Your task to perform on an android device: change notifications settings Image 0: 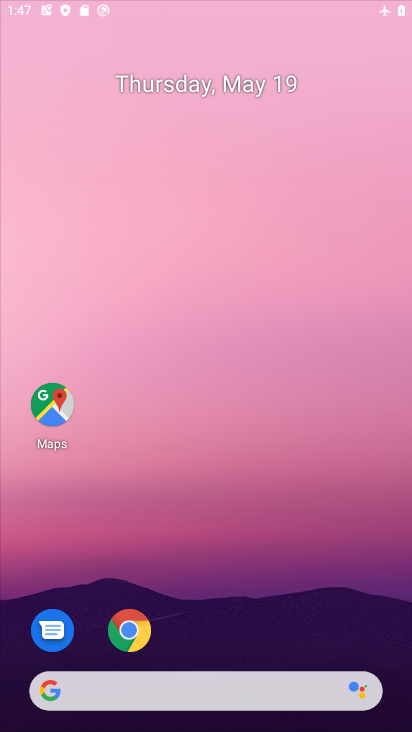
Step 0: drag from (221, 624) to (177, 102)
Your task to perform on an android device: change notifications settings Image 1: 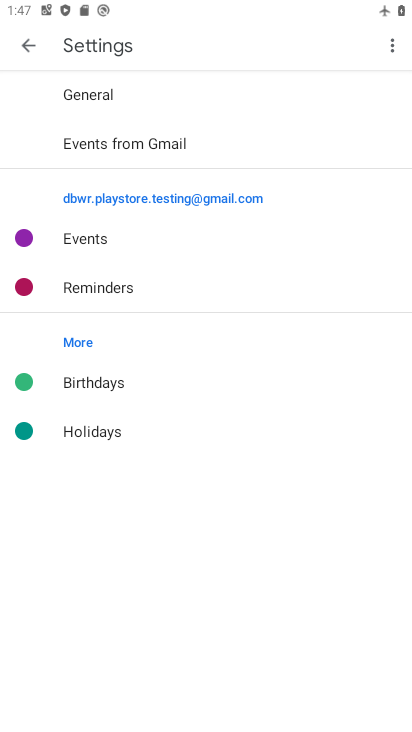
Step 1: press home button
Your task to perform on an android device: change notifications settings Image 2: 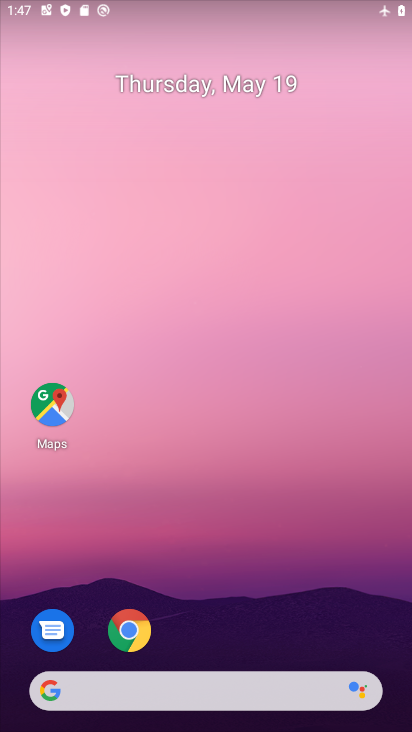
Step 2: drag from (201, 661) to (132, 52)
Your task to perform on an android device: change notifications settings Image 3: 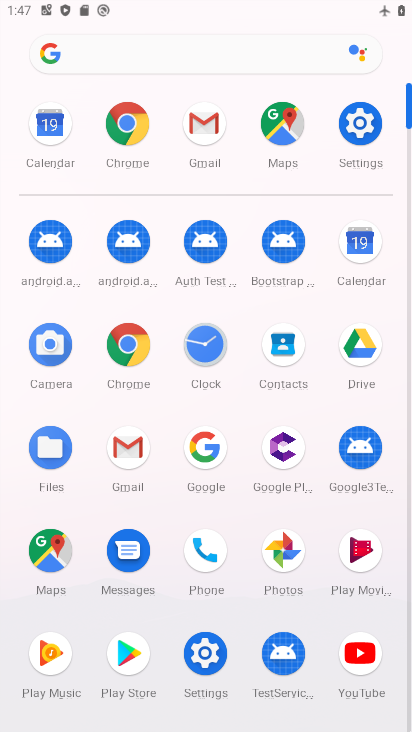
Step 3: click (376, 126)
Your task to perform on an android device: change notifications settings Image 4: 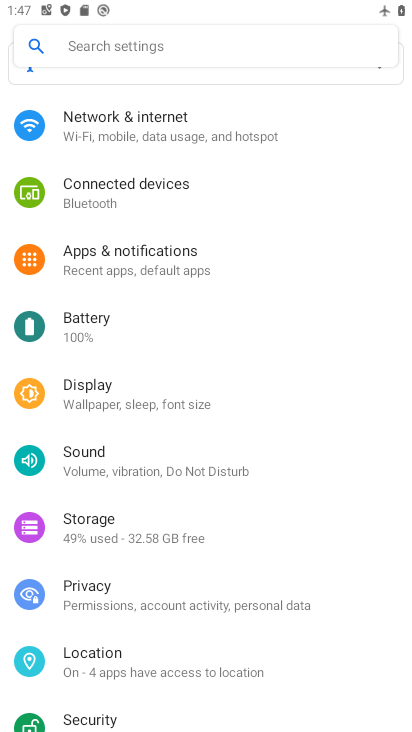
Step 4: click (172, 264)
Your task to perform on an android device: change notifications settings Image 5: 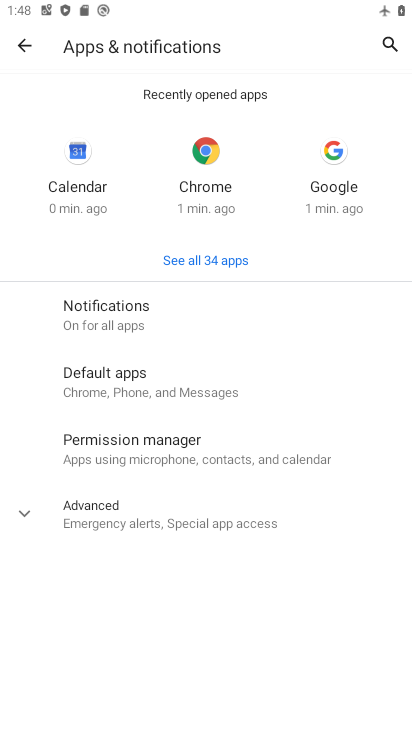
Step 5: click (160, 309)
Your task to perform on an android device: change notifications settings Image 6: 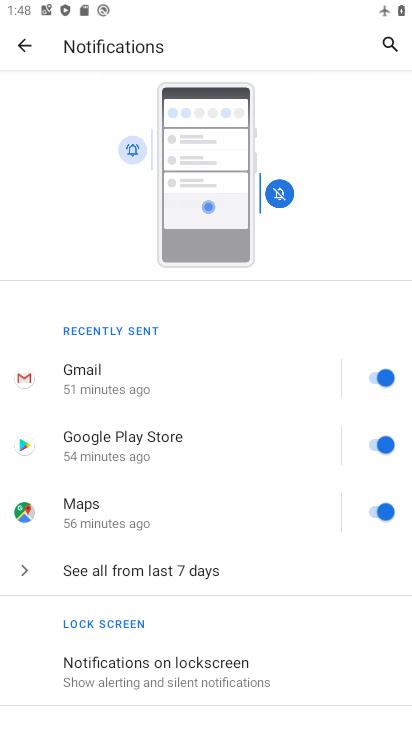
Step 6: drag from (232, 659) to (160, 327)
Your task to perform on an android device: change notifications settings Image 7: 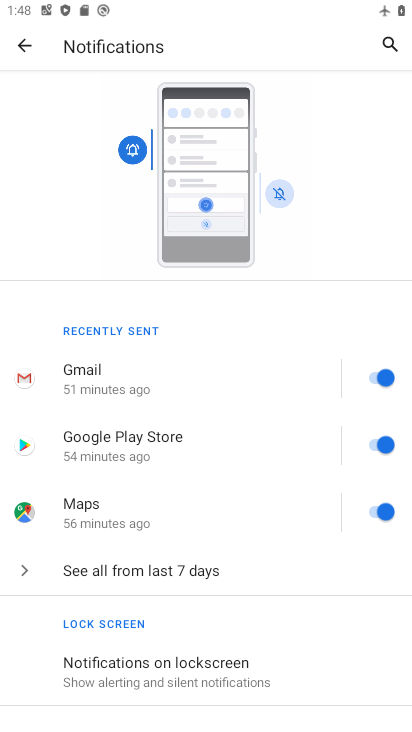
Step 7: click (144, 572)
Your task to perform on an android device: change notifications settings Image 8: 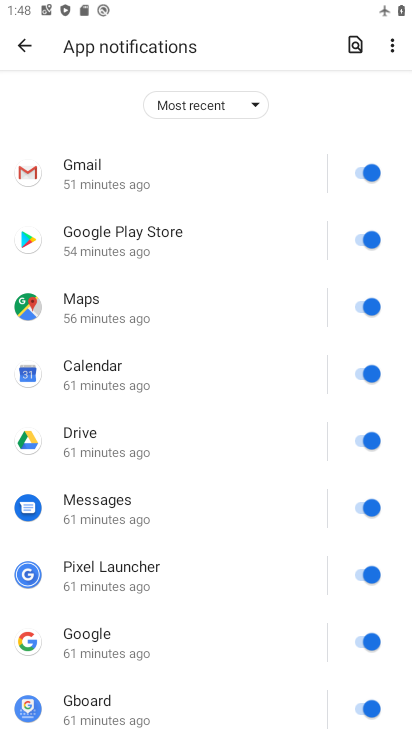
Step 8: click (192, 99)
Your task to perform on an android device: change notifications settings Image 9: 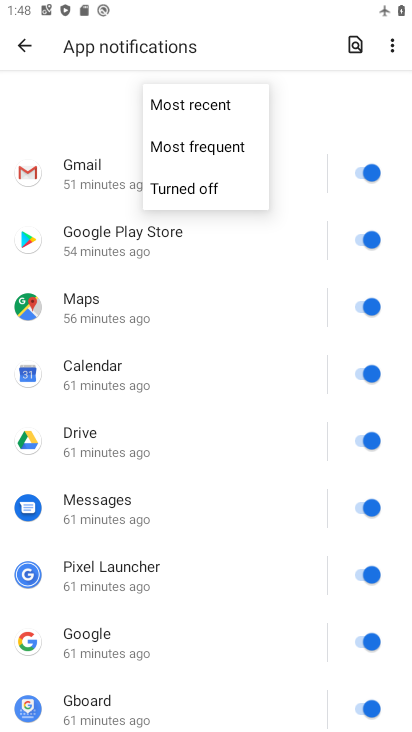
Step 9: click (207, 204)
Your task to perform on an android device: change notifications settings Image 10: 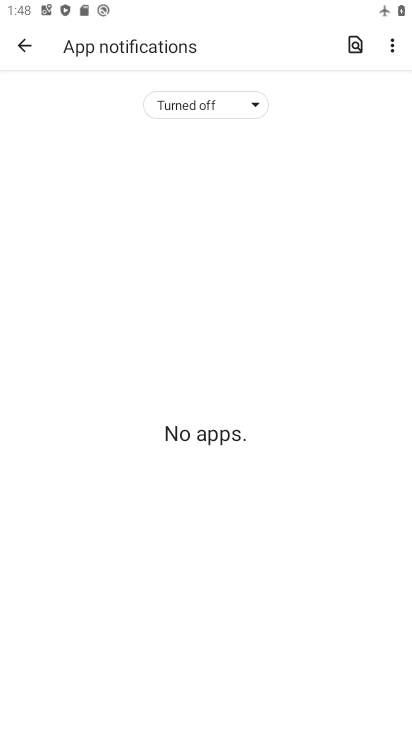
Step 10: task complete